Your task to perform on an android device: Go to settings Image 0: 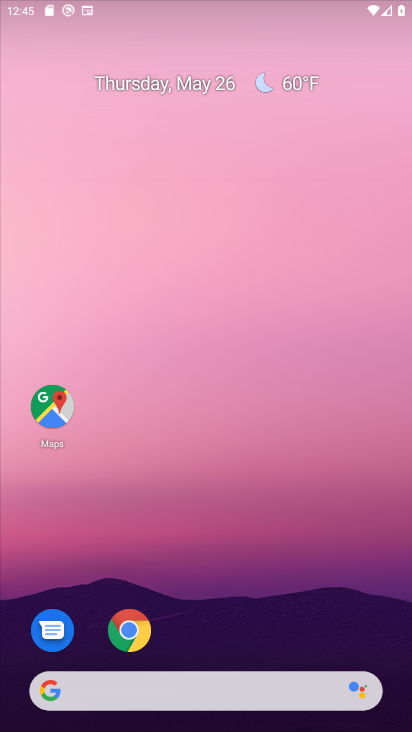
Step 0: drag from (304, 582) to (314, 71)
Your task to perform on an android device: Go to settings Image 1: 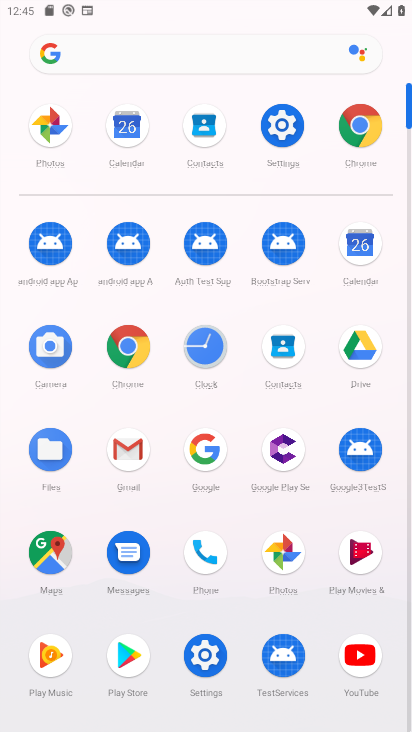
Step 1: click (288, 118)
Your task to perform on an android device: Go to settings Image 2: 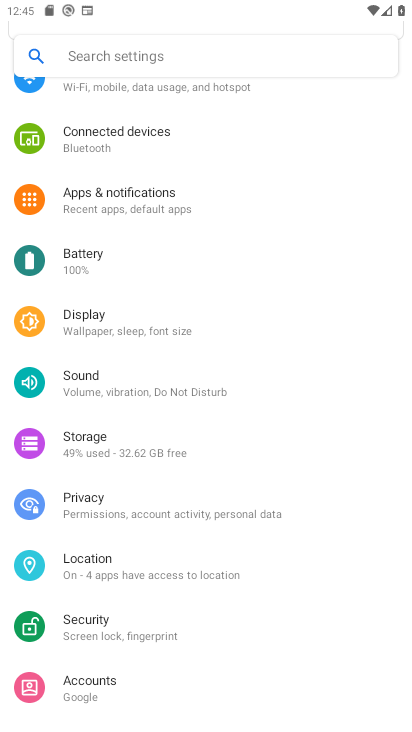
Step 2: task complete